Your task to perform on an android device: See recent photos Image 0: 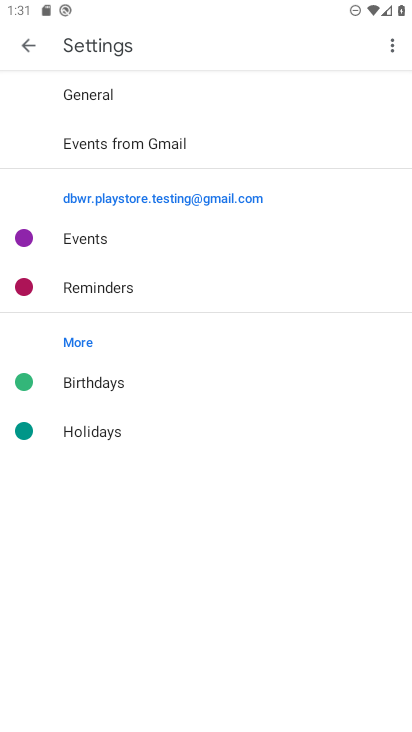
Step 0: press home button
Your task to perform on an android device: See recent photos Image 1: 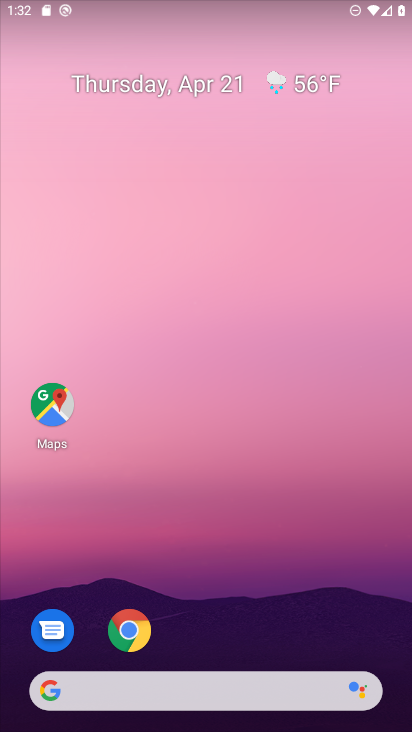
Step 1: drag from (214, 682) to (225, 230)
Your task to perform on an android device: See recent photos Image 2: 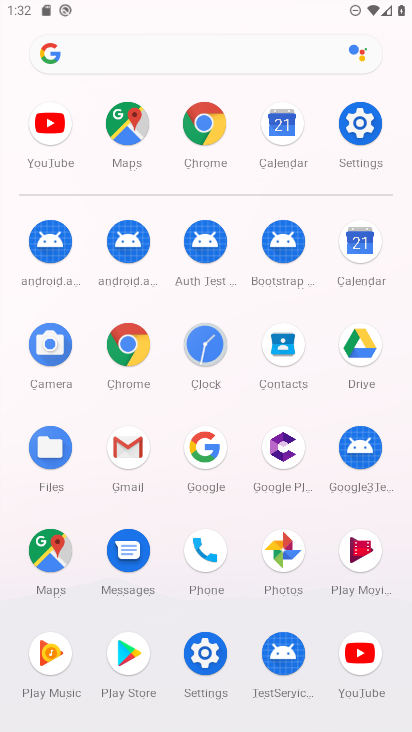
Step 2: click (280, 555)
Your task to perform on an android device: See recent photos Image 3: 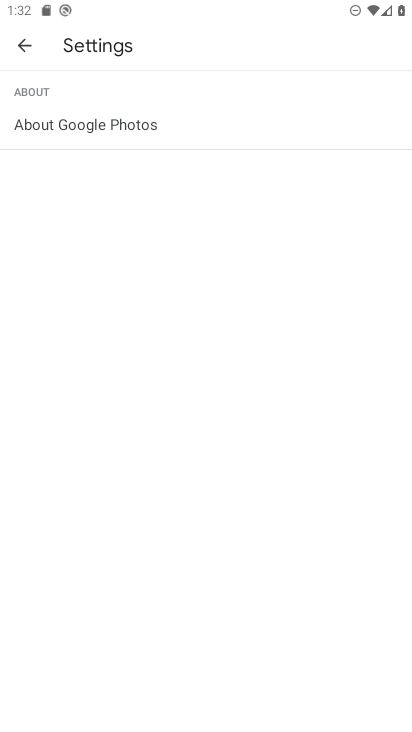
Step 3: click (27, 30)
Your task to perform on an android device: See recent photos Image 4: 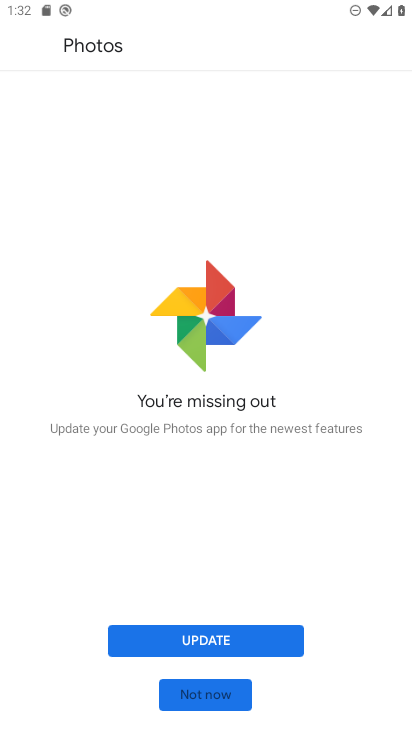
Step 4: click (211, 636)
Your task to perform on an android device: See recent photos Image 5: 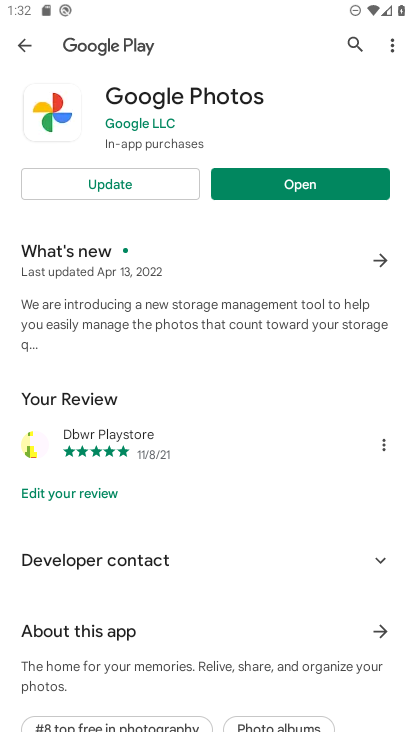
Step 5: click (149, 186)
Your task to perform on an android device: See recent photos Image 6: 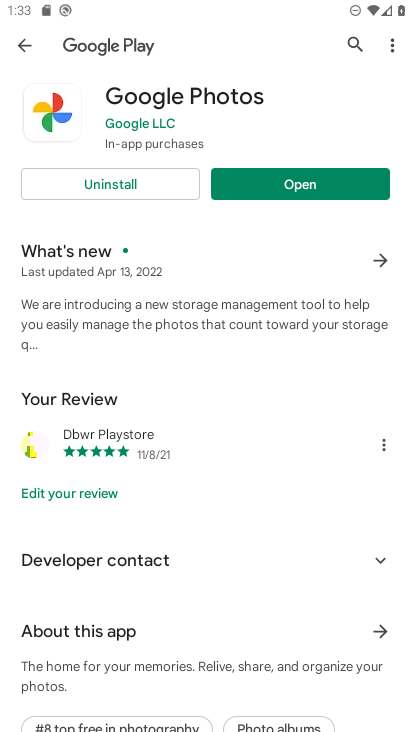
Step 6: click (287, 181)
Your task to perform on an android device: See recent photos Image 7: 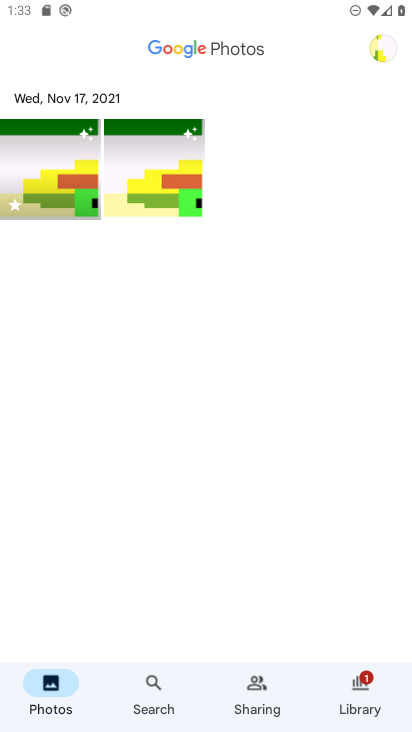
Step 7: task complete